Your task to perform on an android device: check out phone information Image 0: 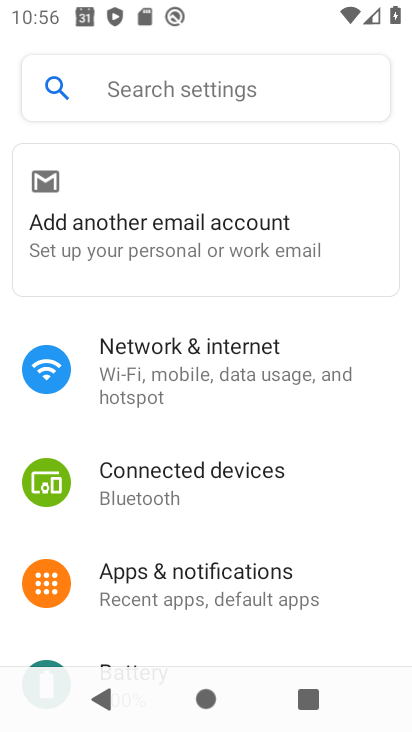
Step 0: drag from (277, 590) to (257, 171)
Your task to perform on an android device: check out phone information Image 1: 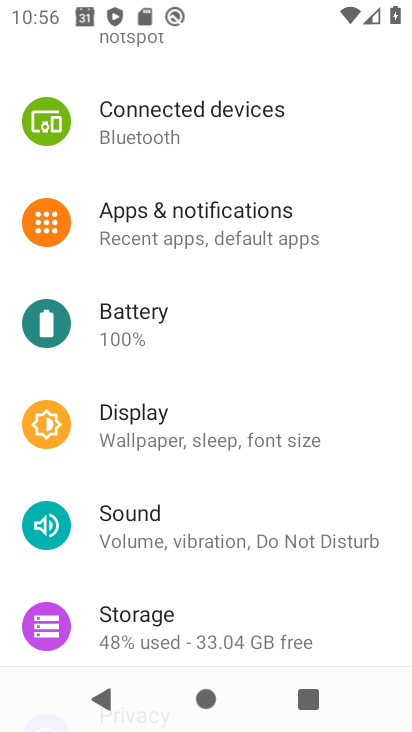
Step 1: drag from (265, 566) to (267, 187)
Your task to perform on an android device: check out phone information Image 2: 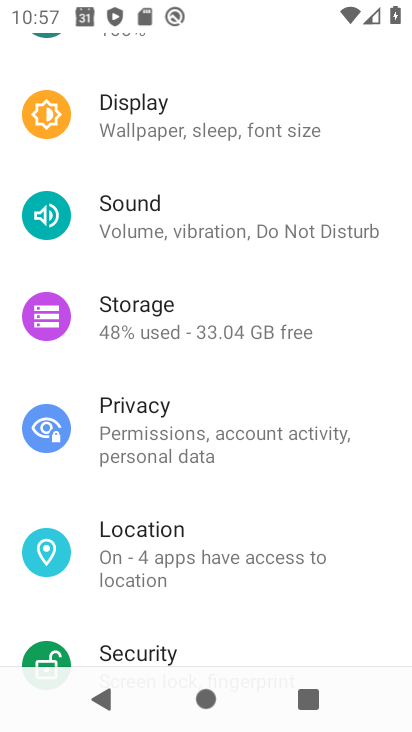
Step 2: drag from (252, 600) to (248, 168)
Your task to perform on an android device: check out phone information Image 3: 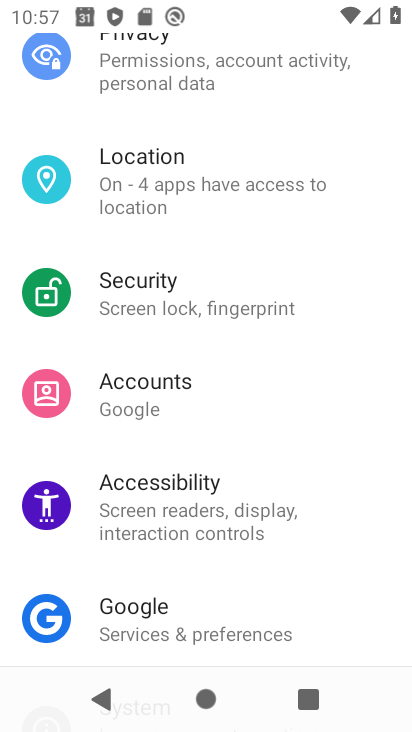
Step 3: drag from (242, 564) to (242, 178)
Your task to perform on an android device: check out phone information Image 4: 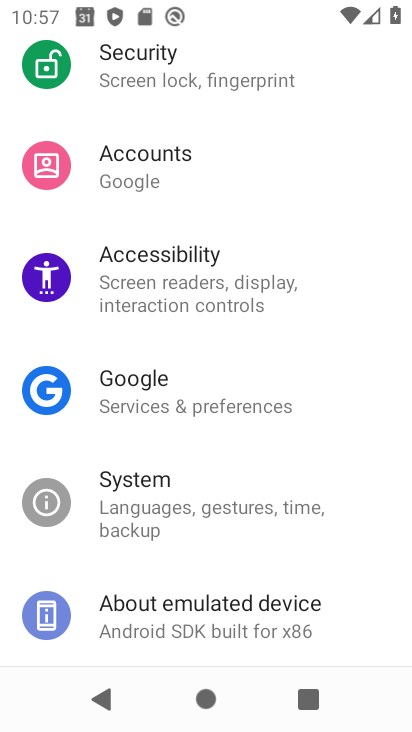
Step 4: click (238, 624)
Your task to perform on an android device: check out phone information Image 5: 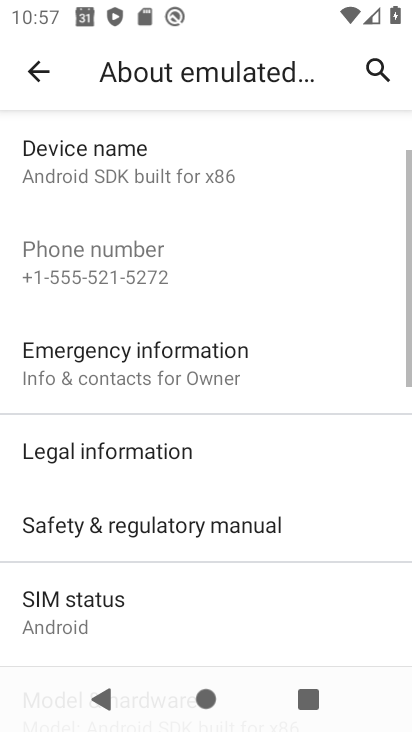
Step 5: drag from (232, 578) to (258, 208)
Your task to perform on an android device: check out phone information Image 6: 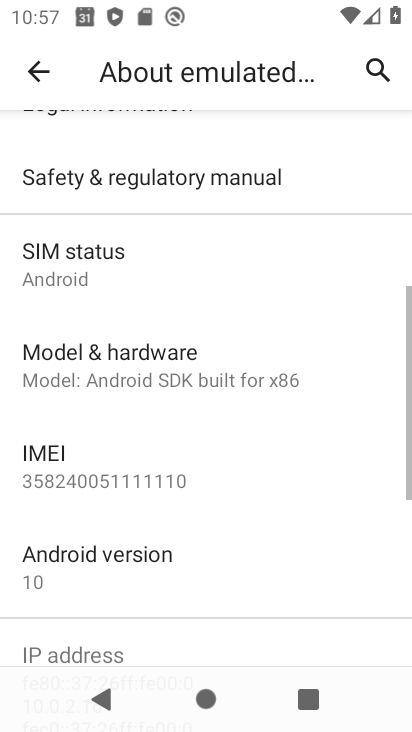
Step 6: drag from (170, 577) to (187, 416)
Your task to perform on an android device: check out phone information Image 7: 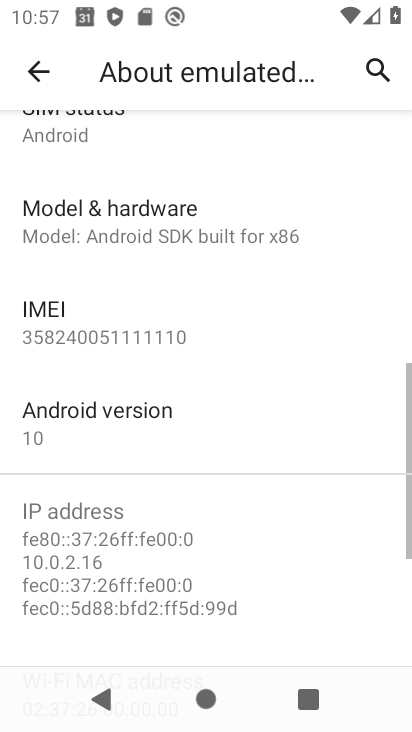
Step 7: click (155, 237)
Your task to perform on an android device: check out phone information Image 8: 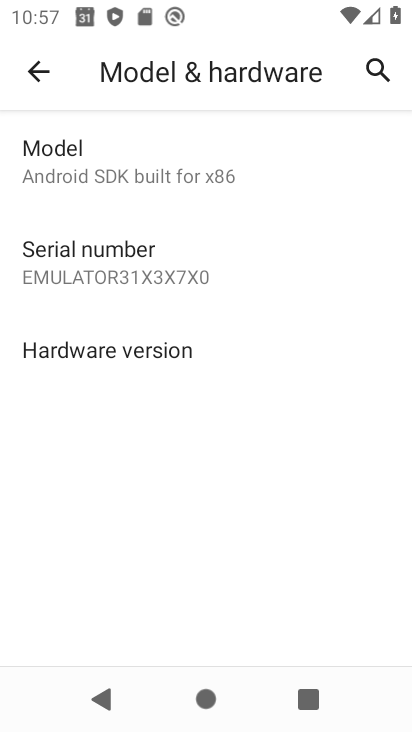
Step 8: task complete